Your task to perform on an android device: Search for pizza restaurants on Maps Image 0: 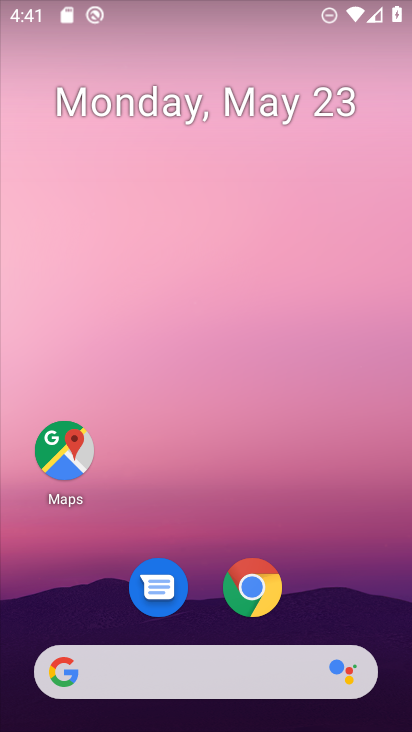
Step 0: click (64, 433)
Your task to perform on an android device: Search for pizza restaurants on Maps Image 1: 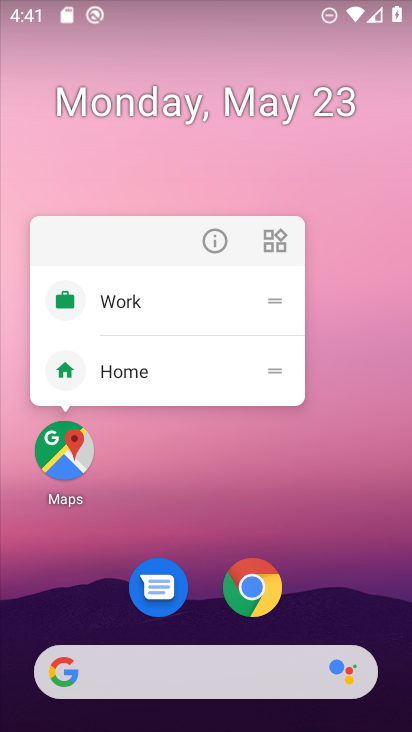
Step 1: click (59, 430)
Your task to perform on an android device: Search for pizza restaurants on Maps Image 2: 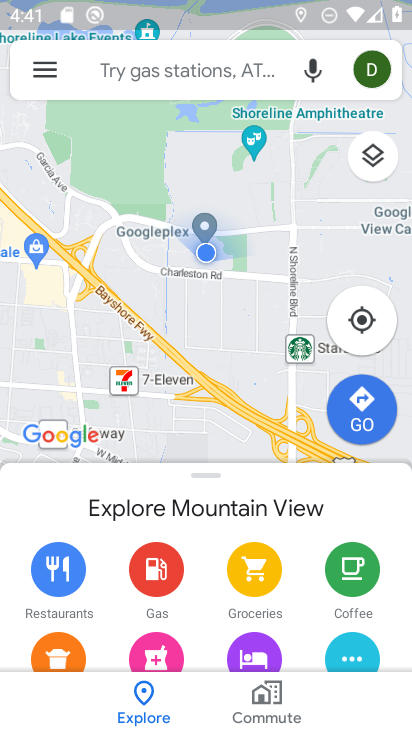
Step 2: click (182, 72)
Your task to perform on an android device: Search for pizza restaurants on Maps Image 3: 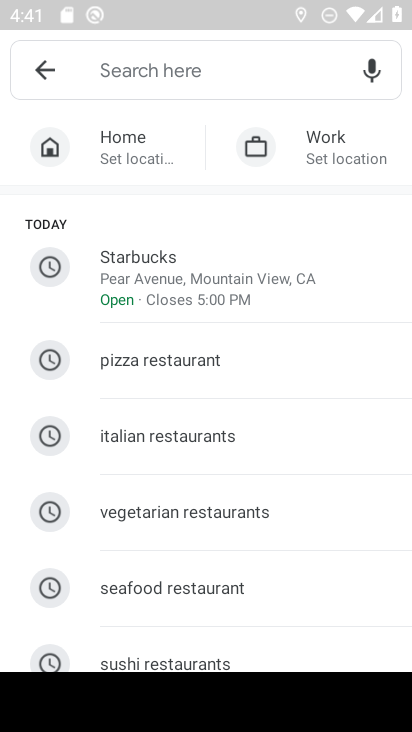
Step 3: type "Pizza restaurants"
Your task to perform on an android device: Search for pizza restaurants on Maps Image 4: 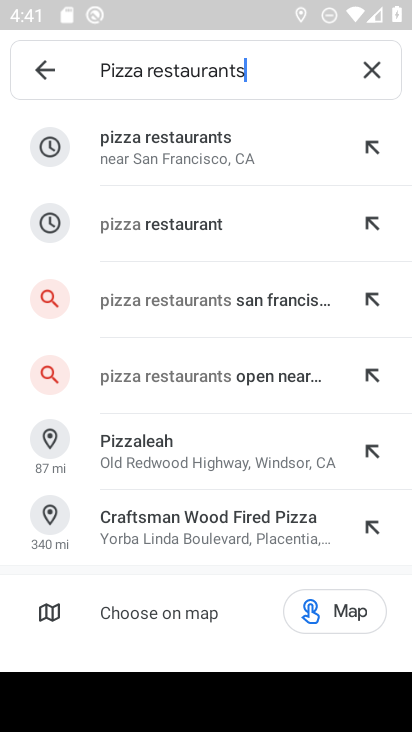
Step 4: click (209, 156)
Your task to perform on an android device: Search for pizza restaurants on Maps Image 5: 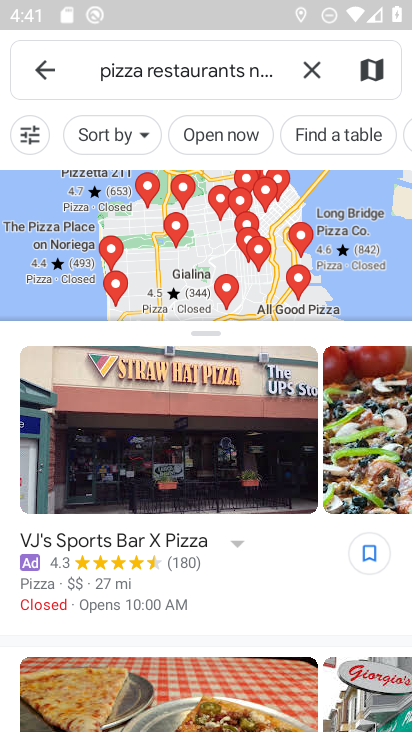
Step 5: task complete